Your task to perform on an android device: Open the calendar app, open the side menu, and click the "Day" option Image 0: 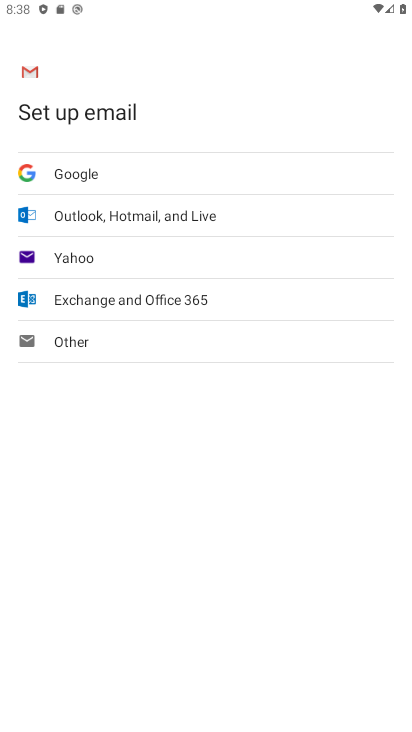
Step 0: press home button
Your task to perform on an android device: Open the calendar app, open the side menu, and click the "Day" option Image 1: 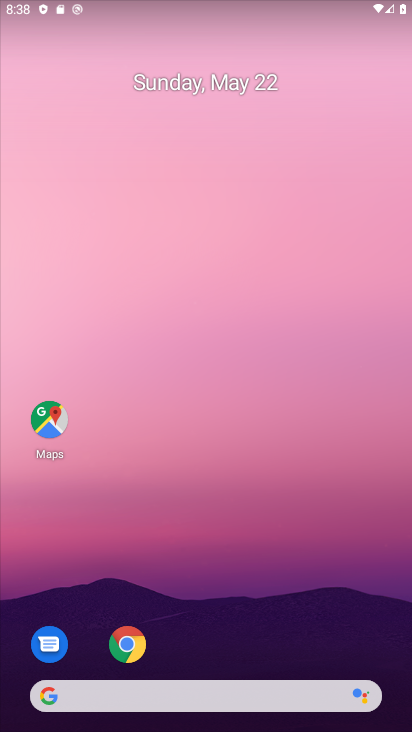
Step 1: drag from (208, 499) to (172, 112)
Your task to perform on an android device: Open the calendar app, open the side menu, and click the "Day" option Image 2: 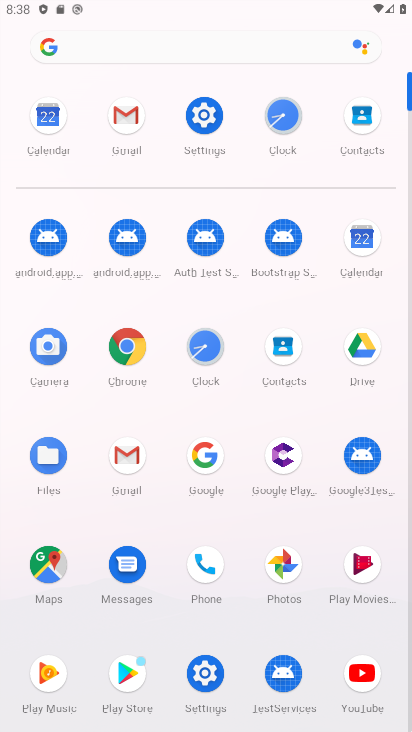
Step 2: click (368, 242)
Your task to perform on an android device: Open the calendar app, open the side menu, and click the "Day" option Image 3: 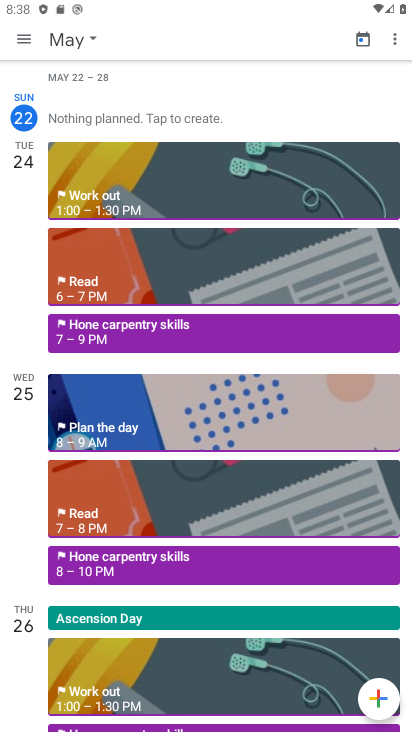
Step 3: click (20, 45)
Your task to perform on an android device: Open the calendar app, open the side menu, and click the "Day" option Image 4: 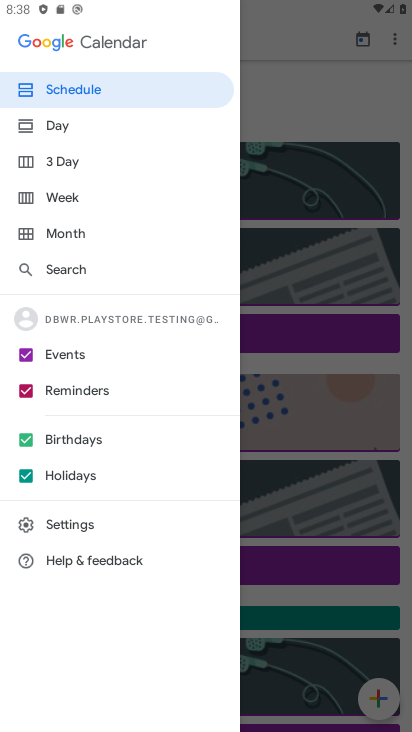
Step 4: click (72, 126)
Your task to perform on an android device: Open the calendar app, open the side menu, and click the "Day" option Image 5: 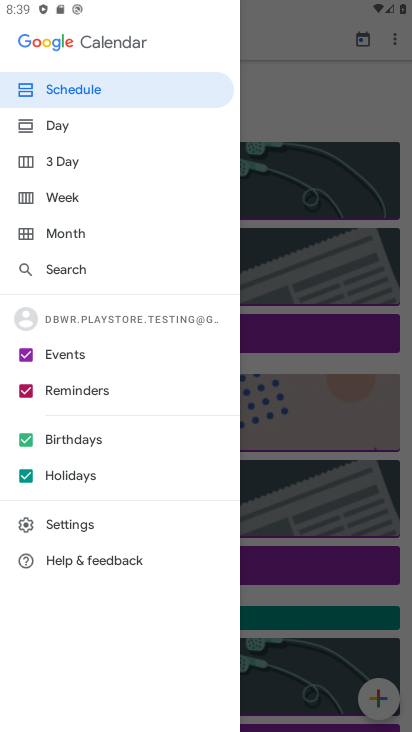
Step 5: click (54, 131)
Your task to perform on an android device: Open the calendar app, open the side menu, and click the "Day" option Image 6: 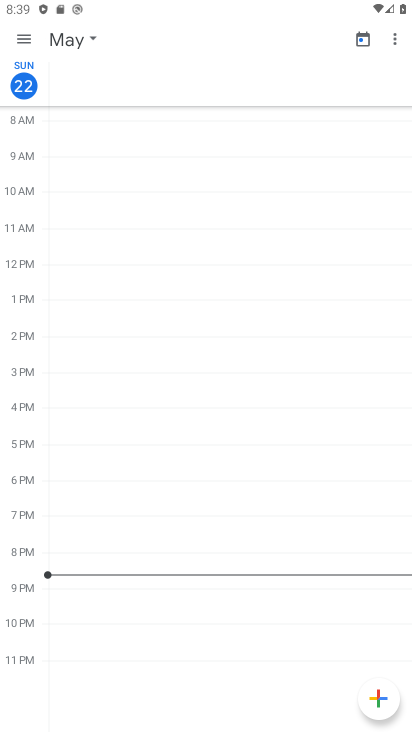
Step 6: task complete